Your task to perform on an android device: Go to sound settings Image 0: 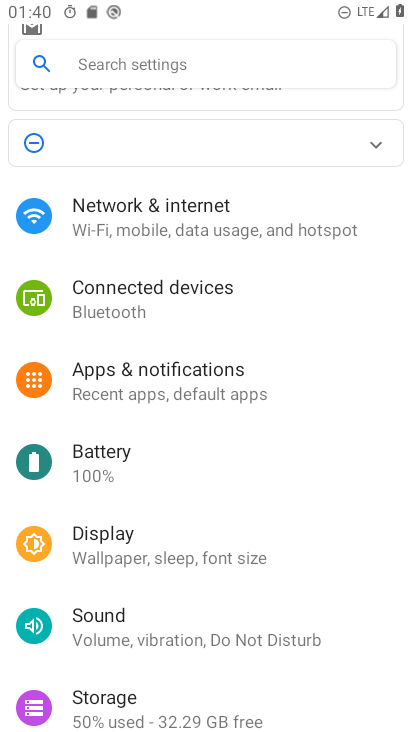
Step 0: press home button
Your task to perform on an android device: Go to sound settings Image 1: 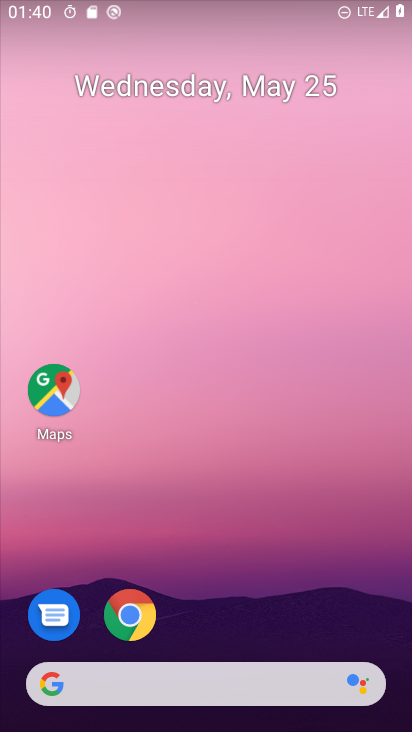
Step 1: drag from (273, 700) to (212, 0)
Your task to perform on an android device: Go to sound settings Image 2: 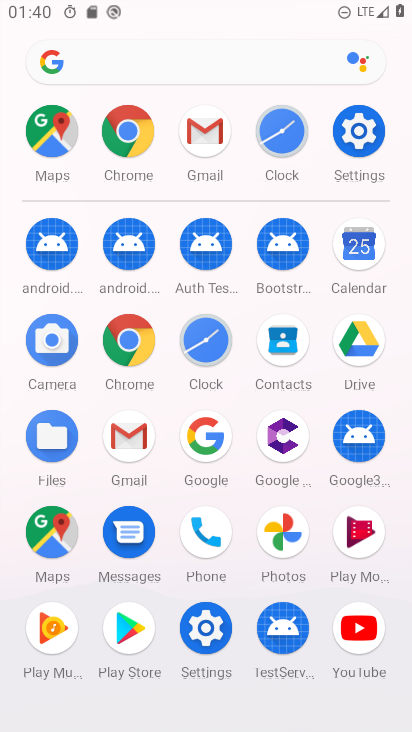
Step 2: click (362, 136)
Your task to perform on an android device: Go to sound settings Image 3: 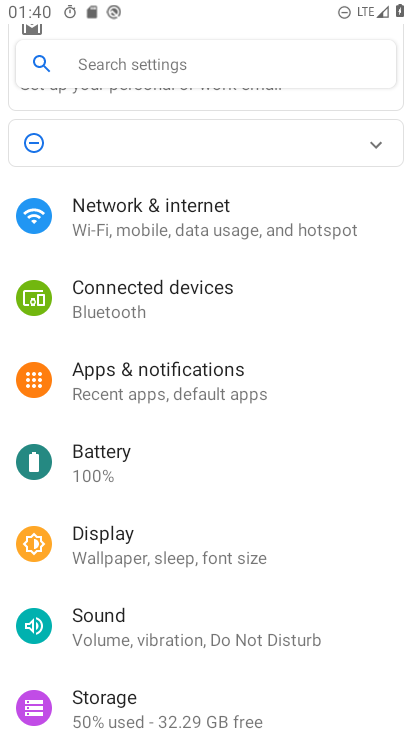
Step 3: click (132, 61)
Your task to perform on an android device: Go to sound settings Image 4: 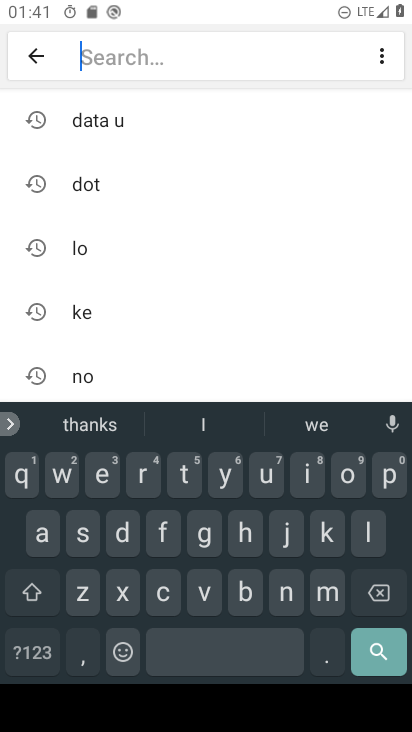
Step 4: click (82, 537)
Your task to perform on an android device: Go to sound settings Image 5: 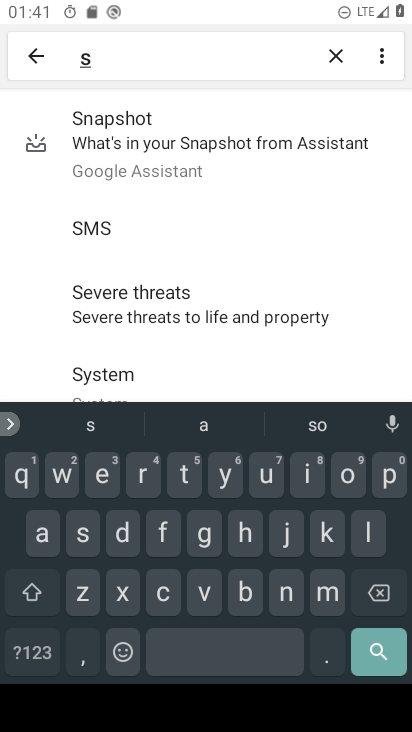
Step 5: click (346, 483)
Your task to perform on an android device: Go to sound settings Image 6: 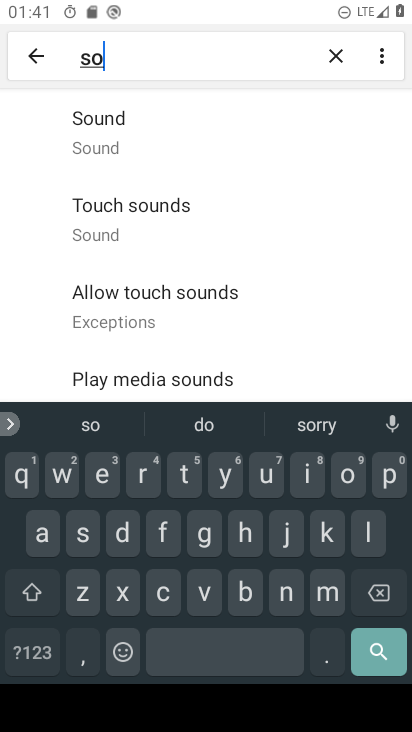
Step 6: click (110, 147)
Your task to perform on an android device: Go to sound settings Image 7: 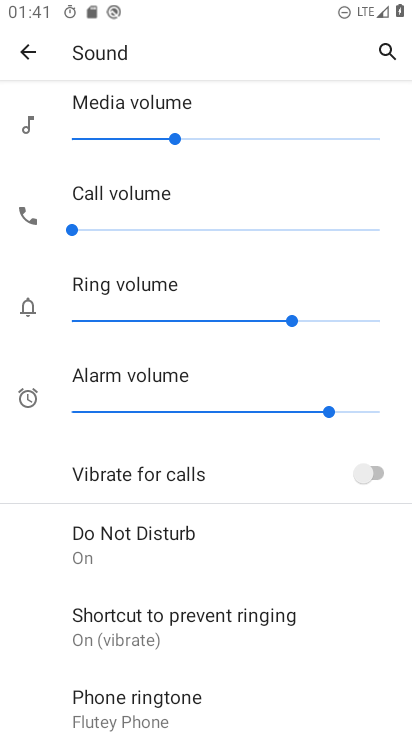
Step 7: task complete